Your task to perform on an android device: delete a single message in the gmail app Image 0: 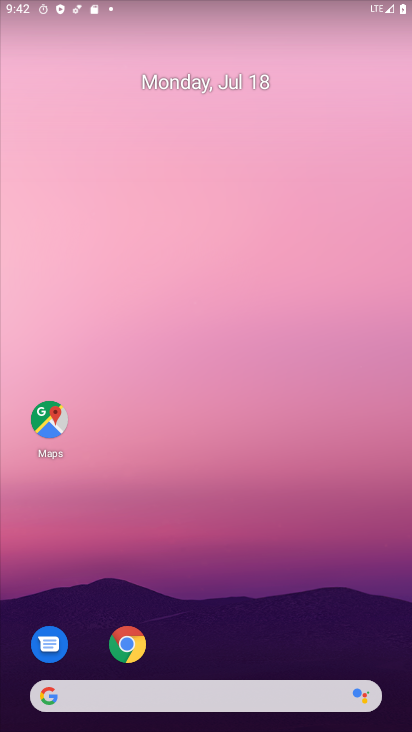
Step 0: press home button
Your task to perform on an android device: delete a single message in the gmail app Image 1: 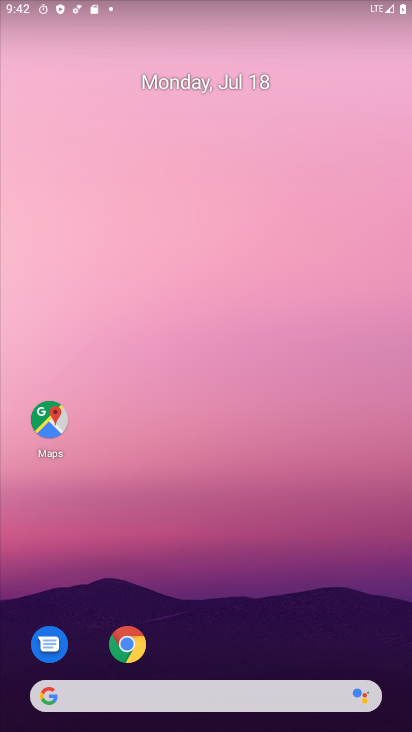
Step 1: drag from (215, 657) to (210, 90)
Your task to perform on an android device: delete a single message in the gmail app Image 2: 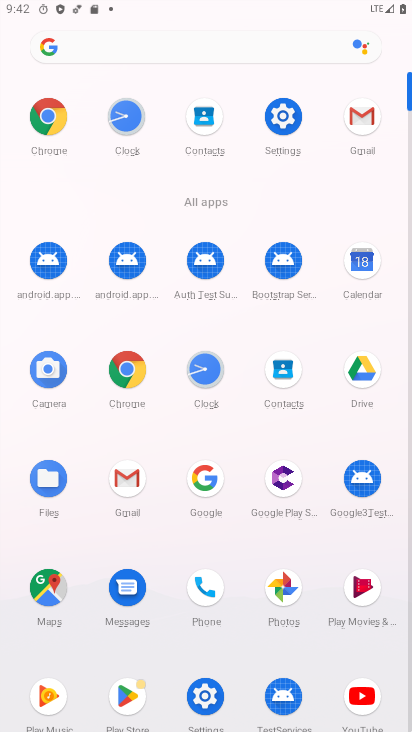
Step 2: click (357, 114)
Your task to perform on an android device: delete a single message in the gmail app Image 3: 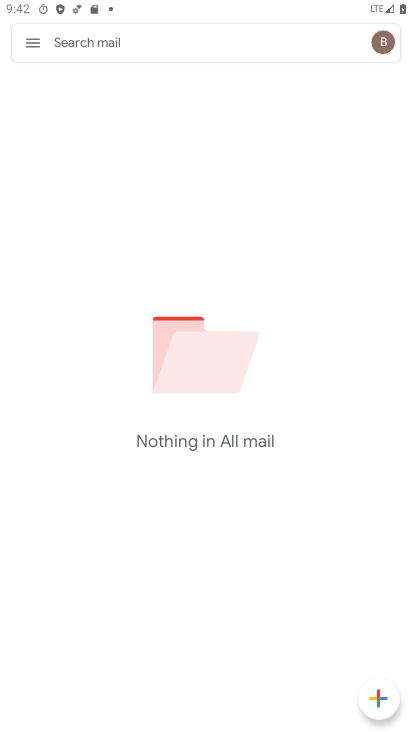
Step 3: task complete